Your task to perform on an android device: turn vacation reply on in the gmail app Image 0: 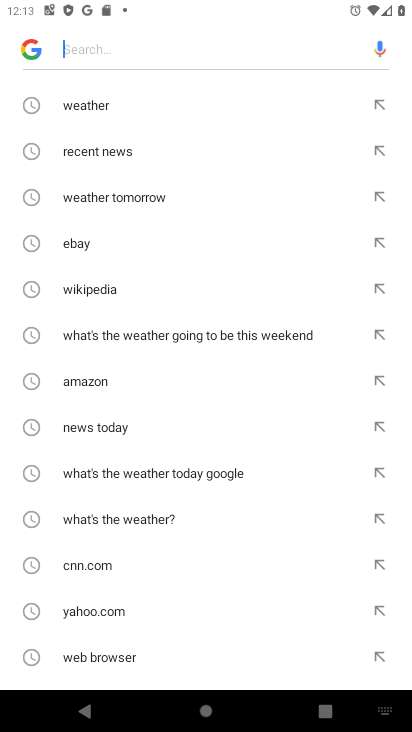
Step 0: press home button
Your task to perform on an android device: turn vacation reply on in the gmail app Image 1: 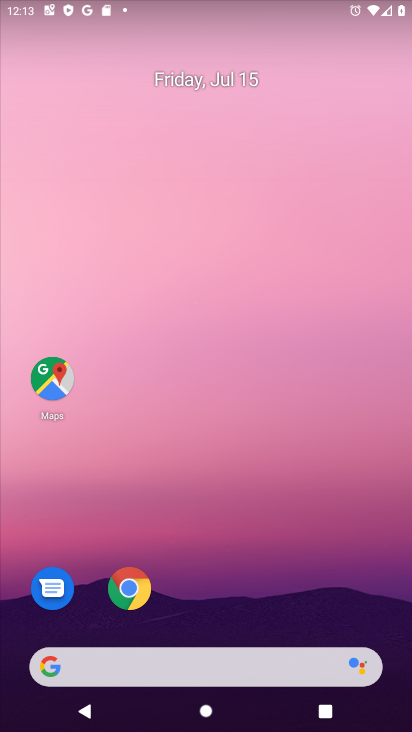
Step 1: drag from (155, 659) to (265, 121)
Your task to perform on an android device: turn vacation reply on in the gmail app Image 2: 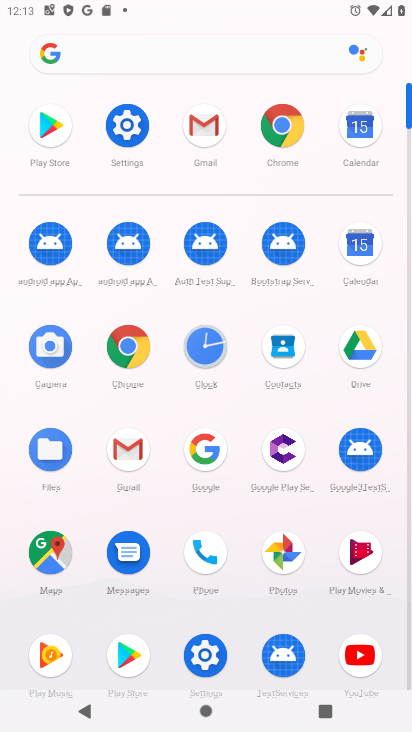
Step 2: click (200, 133)
Your task to perform on an android device: turn vacation reply on in the gmail app Image 3: 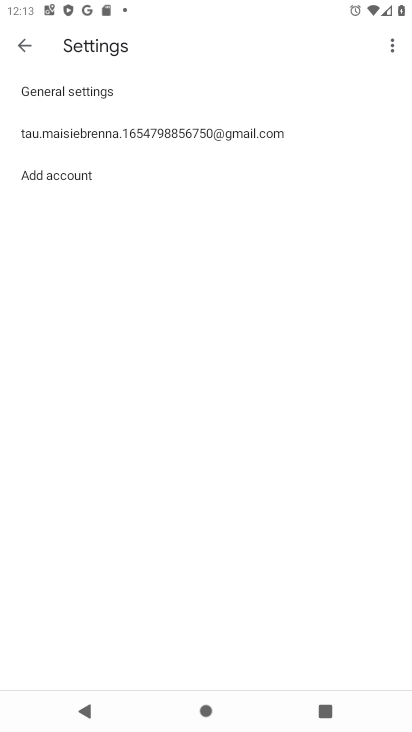
Step 3: click (192, 129)
Your task to perform on an android device: turn vacation reply on in the gmail app Image 4: 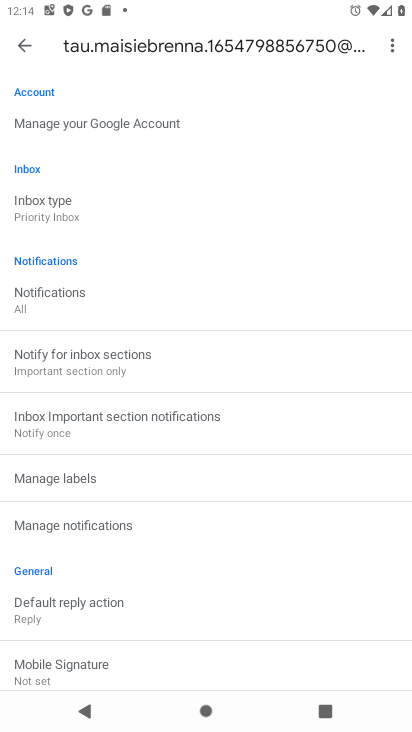
Step 4: drag from (253, 534) to (302, 131)
Your task to perform on an android device: turn vacation reply on in the gmail app Image 5: 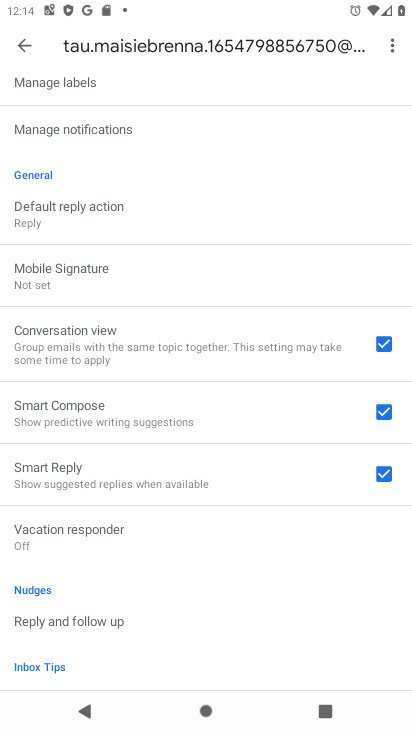
Step 5: click (108, 532)
Your task to perform on an android device: turn vacation reply on in the gmail app Image 6: 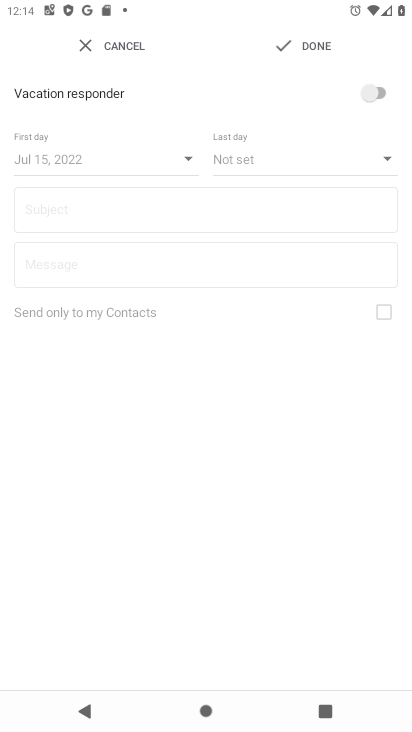
Step 6: click (377, 91)
Your task to perform on an android device: turn vacation reply on in the gmail app Image 7: 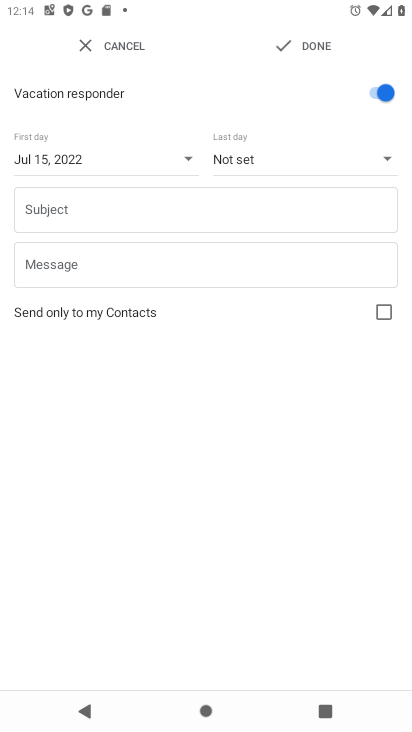
Step 7: task complete